Your task to perform on an android device: turn on the 24-hour format for clock Image 0: 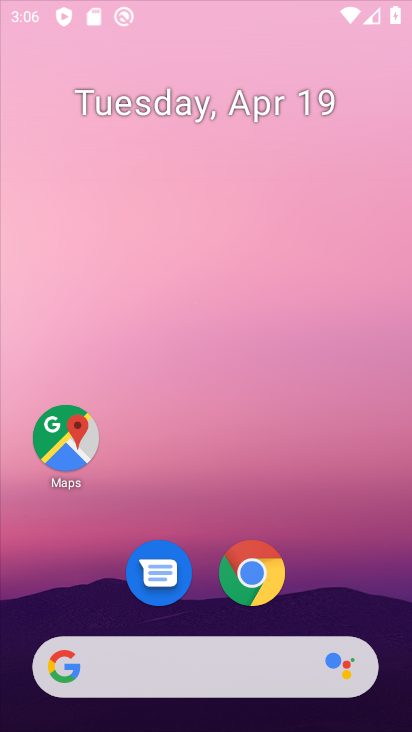
Step 0: drag from (35, 343) to (411, 429)
Your task to perform on an android device: turn on the 24-hour format for clock Image 1: 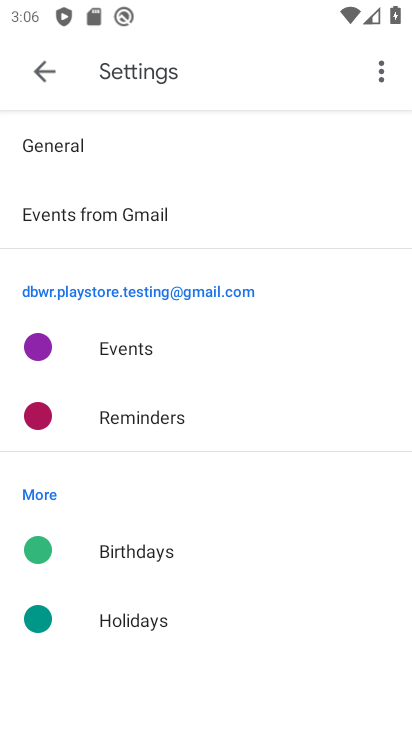
Step 1: press home button
Your task to perform on an android device: turn on the 24-hour format for clock Image 2: 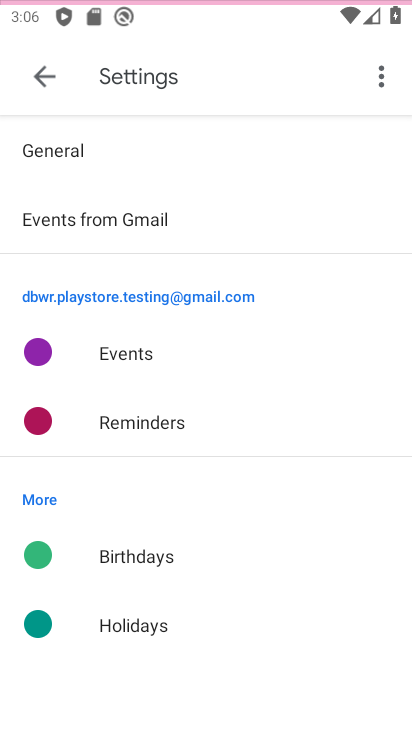
Step 2: click (407, 417)
Your task to perform on an android device: turn on the 24-hour format for clock Image 3: 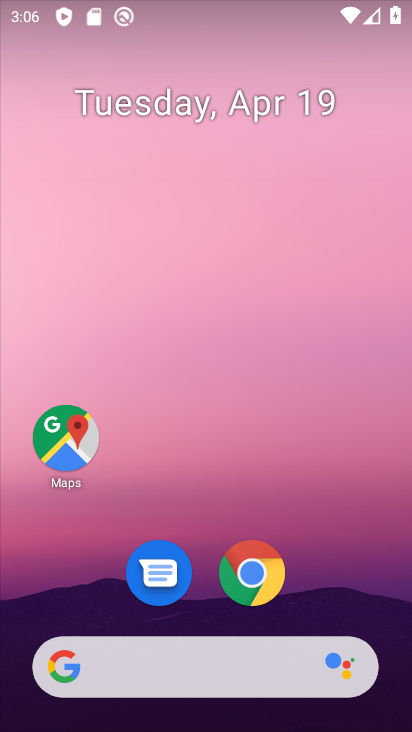
Step 3: drag from (310, 600) to (312, 177)
Your task to perform on an android device: turn on the 24-hour format for clock Image 4: 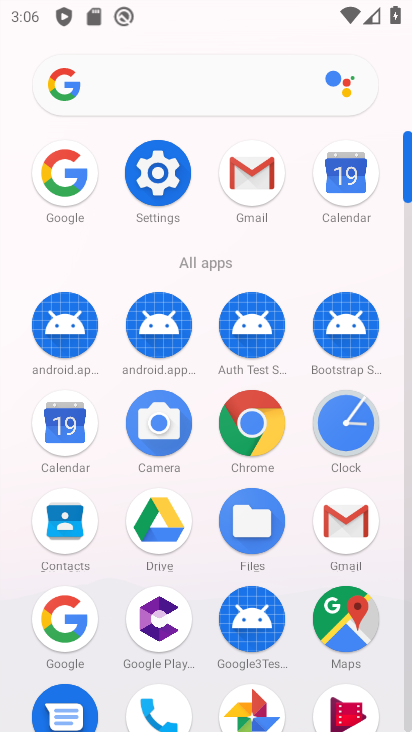
Step 4: click (348, 428)
Your task to perform on an android device: turn on the 24-hour format for clock Image 5: 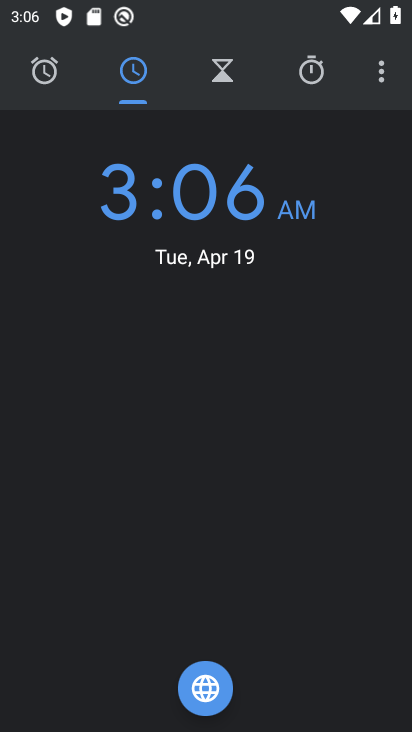
Step 5: click (381, 71)
Your task to perform on an android device: turn on the 24-hour format for clock Image 6: 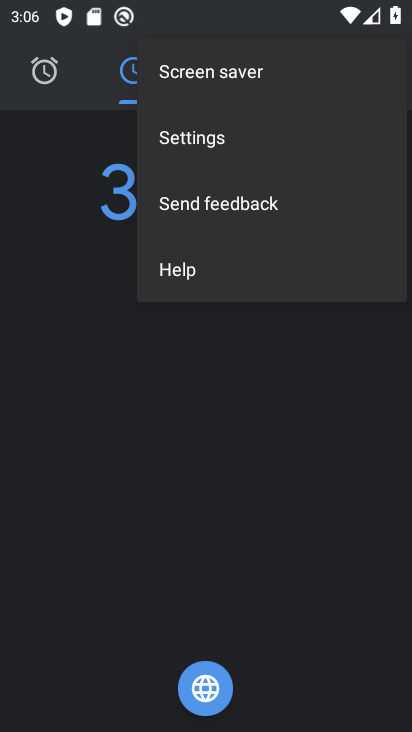
Step 6: click (254, 141)
Your task to perform on an android device: turn on the 24-hour format for clock Image 7: 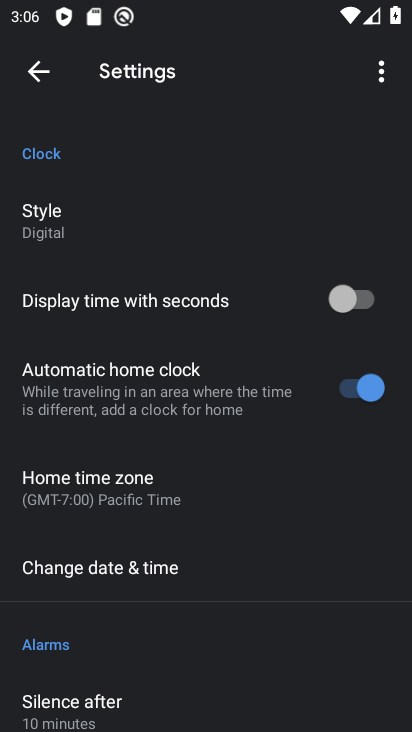
Step 7: drag from (200, 670) to (210, 290)
Your task to perform on an android device: turn on the 24-hour format for clock Image 8: 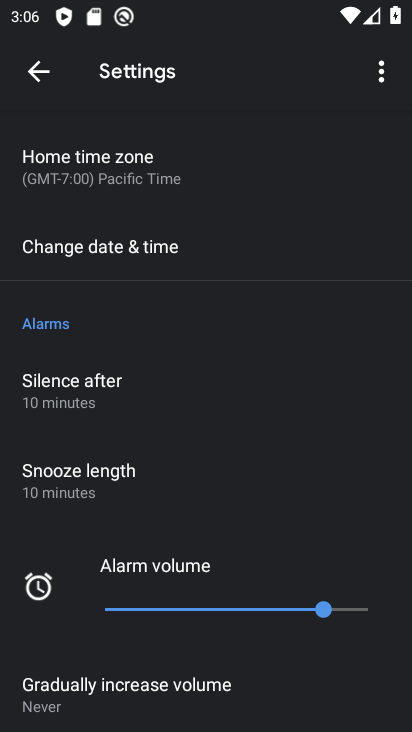
Step 8: click (162, 256)
Your task to perform on an android device: turn on the 24-hour format for clock Image 9: 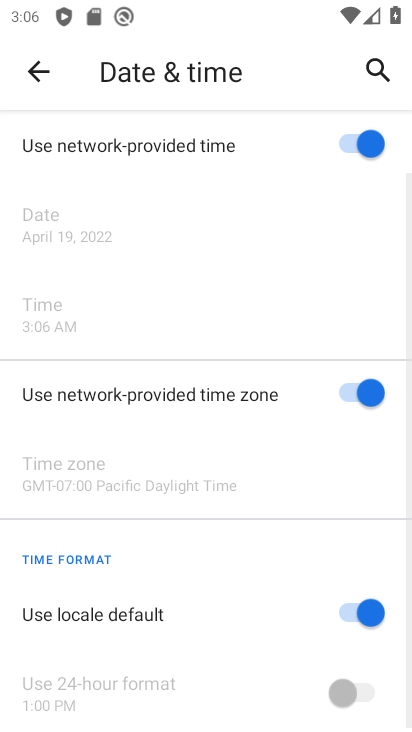
Step 9: drag from (274, 621) to (248, 244)
Your task to perform on an android device: turn on the 24-hour format for clock Image 10: 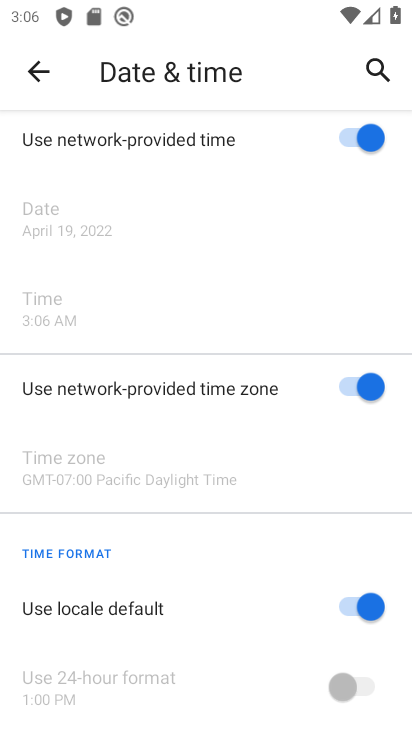
Step 10: click (344, 697)
Your task to perform on an android device: turn on the 24-hour format for clock Image 11: 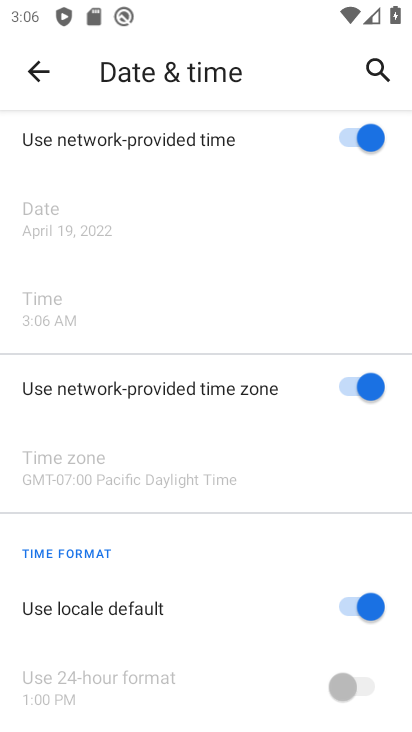
Step 11: click (365, 612)
Your task to perform on an android device: turn on the 24-hour format for clock Image 12: 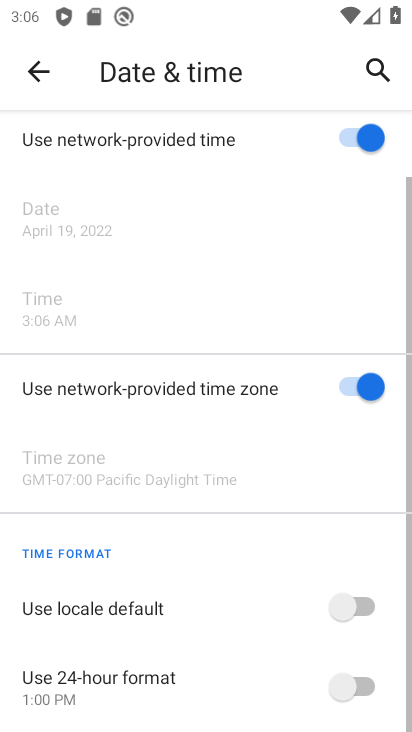
Step 12: click (345, 696)
Your task to perform on an android device: turn on the 24-hour format for clock Image 13: 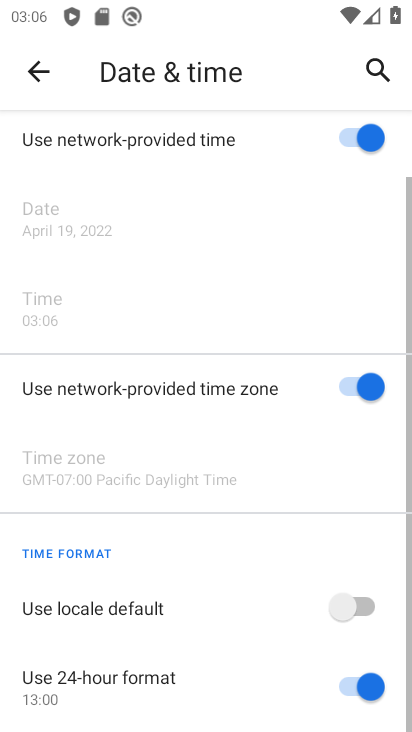
Step 13: task complete